Your task to perform on an android device: open app "Adobe Acrobat Reader" Image 0: 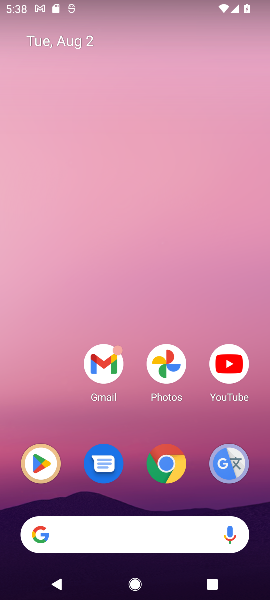
Step 0: press home button
Your task to perform on an android device: open app "Adobe Acrobat Reader" Image 1: 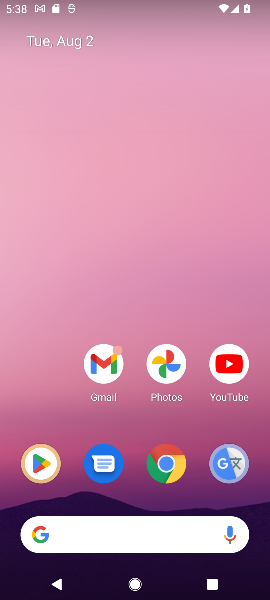
Step 1: click (44, 466)
Your task to perform on an android device: open app "Adobe Acrobat Reader" Image 2: 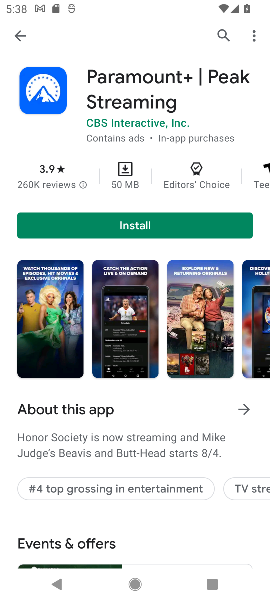
Step 2: click (221, 31)
Your task to perform on an android device: open app "Adobe Acrobat Reader" Image 3: 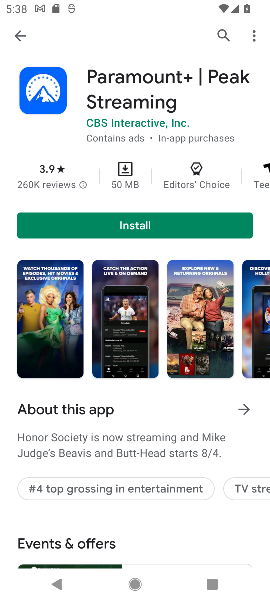
Step 3: click (220, 34)
Your task to perform on an android device: open app "Adobe Acrobat Reader" Image 4: 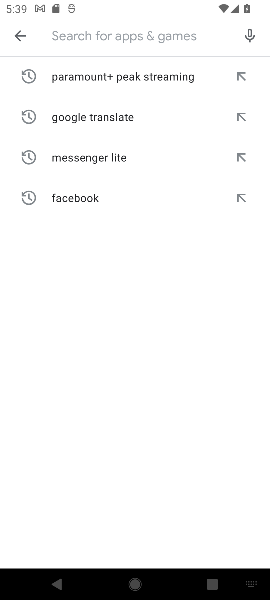
Step 4: type "Adobe Acrobat Reader"
Your task to perform on an android device: open app "Adobe Acrobat Reader" Image 5: 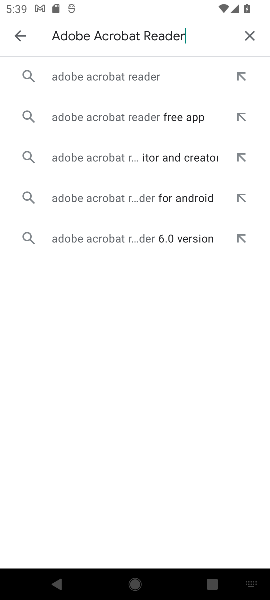
Step 5: click (133, 78)
Your task to perform on an android device: open app "Adobe Acrobat Reader" Image 6: 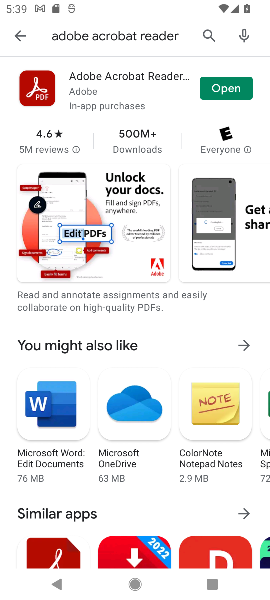
Step 6: click (230, 86)
Your task to perform on an android device: open app "Adobe Acrobat Reader" Image 7: 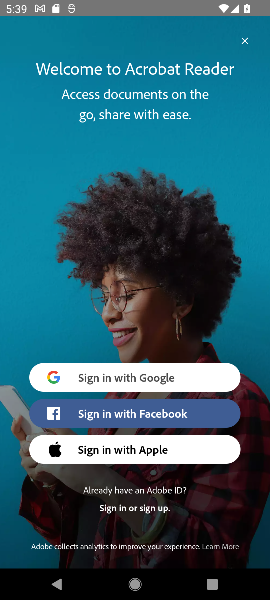
Step 7: task complete